Your task to perform on an android device: remove spam from my inbox in the gmail app Image 0: 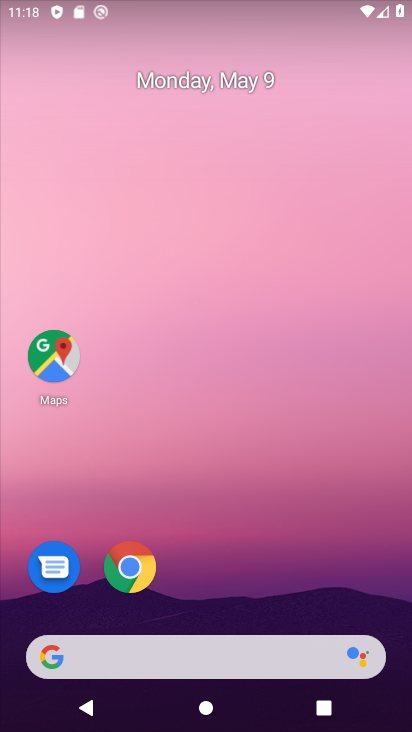
Step 0: drag from (179, 637) to (304, 8)
Your task to perform on an android device: remove spam from my inbox in the gmail app Image 1: 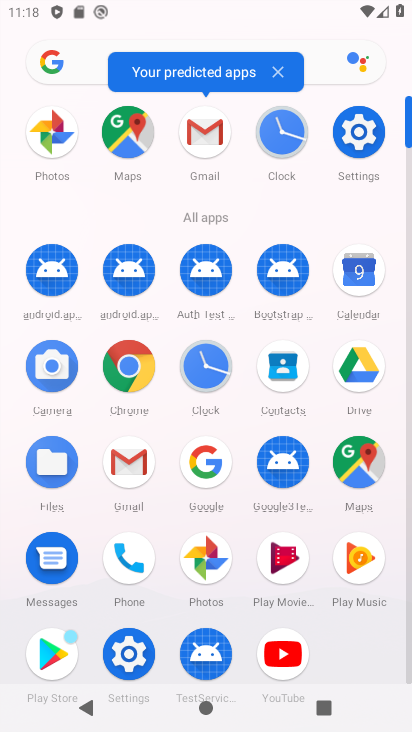
Step 1: click (134, 488)
Your task to perform on an android device: remove spam from my inbox in the gmail app Image 2: 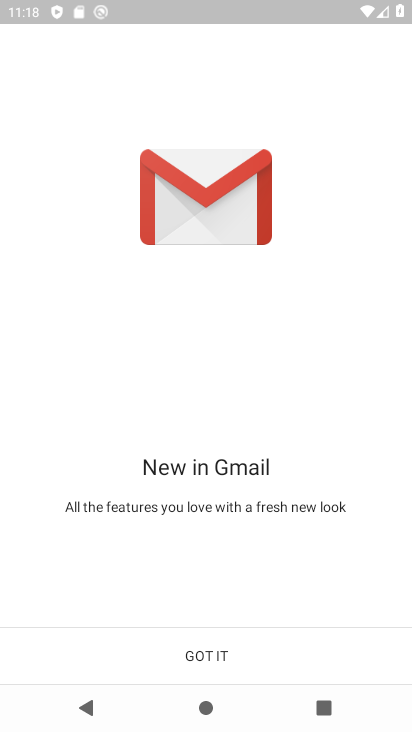
Step 2: click (208, 666)
Your task to perform on an android device: remove spam from my inbox in the gmail app Image 3: 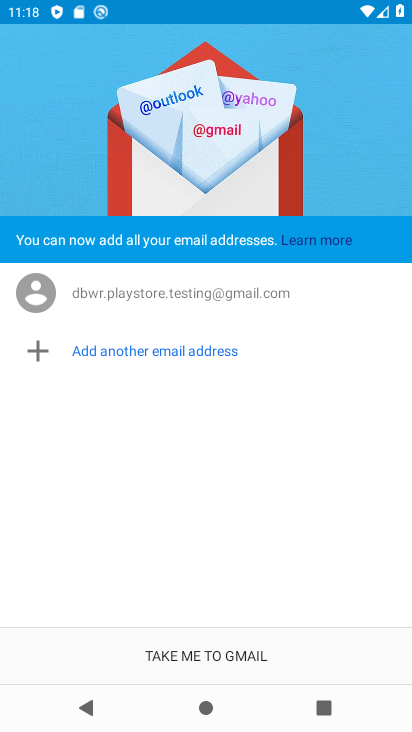
Step 3: click (208, 666)
Your task to perform on an android device: remove spam from my inbox in the gmail app Image 4: 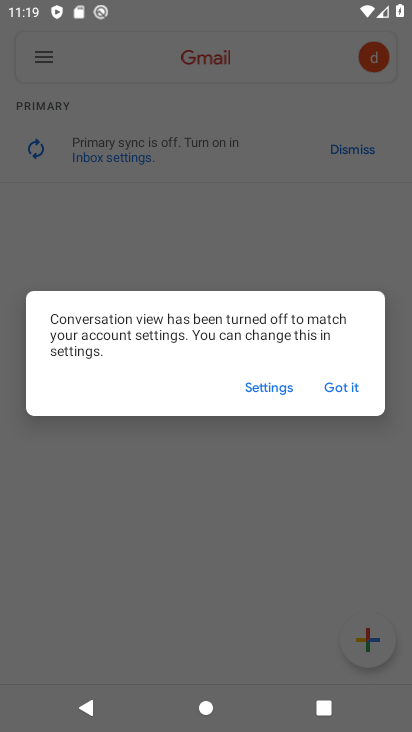
Step 4: click (357, 385)
Your task to perform on an android device: remove spam from my inbox in the gmail app Image 5: 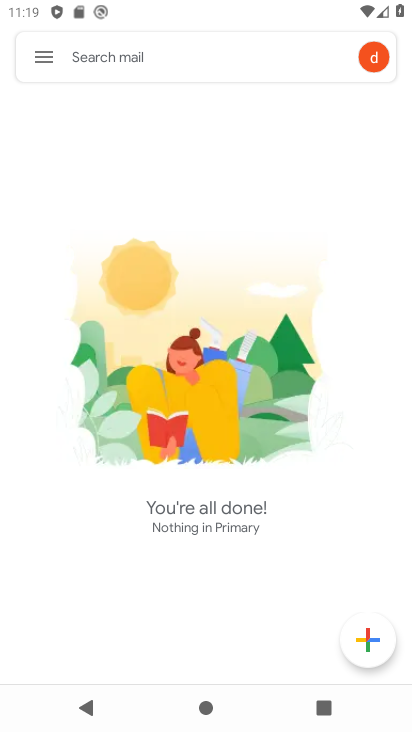
Step 5: click (59, 43)
Your task to perform on an android device: remove spam from my inbox in the gmail app Image 6: 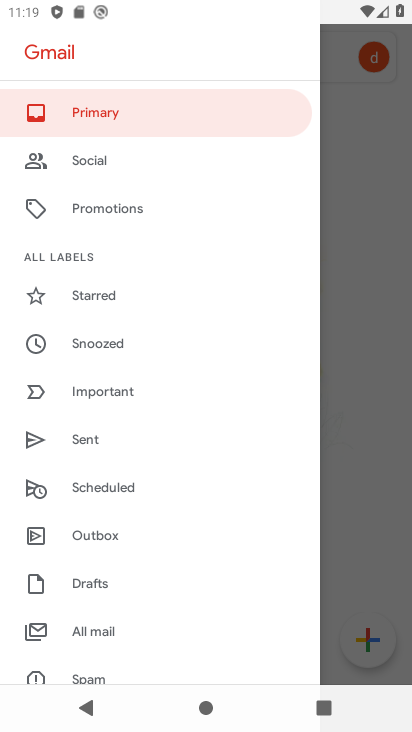
Step 6: drag from (128, 617) to (198, 409)
Your task to perform on an android device: remove spam from my inbox in the gmail app Image 7: 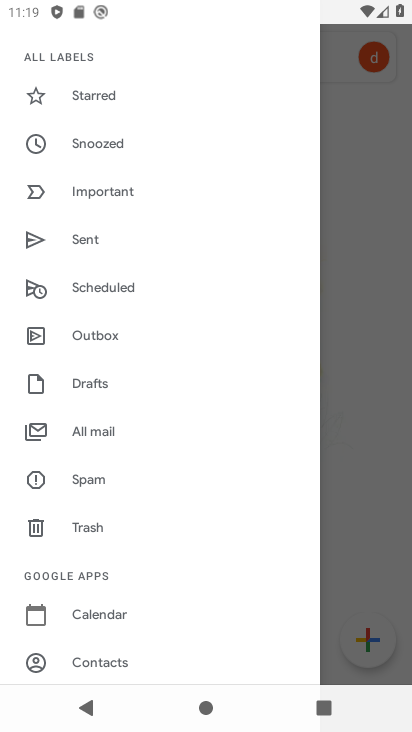
Step 7: click (103, 487)
Your task to perform on an android device: remove spam from my inbox in the gmail app Image 8: 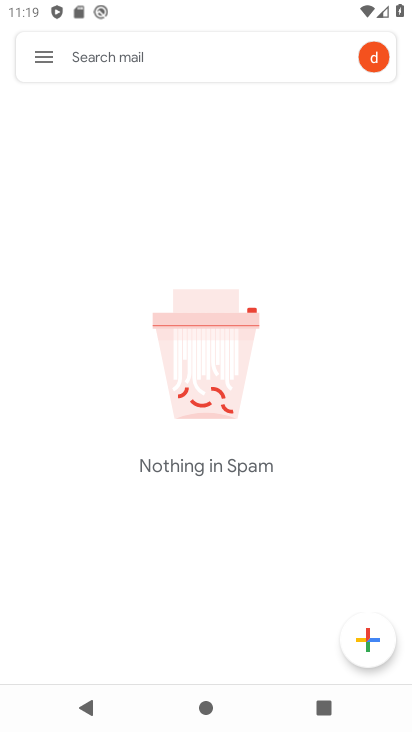
Step 8: task complete